Your task to perform on an android device: open wifi settings Image 0: 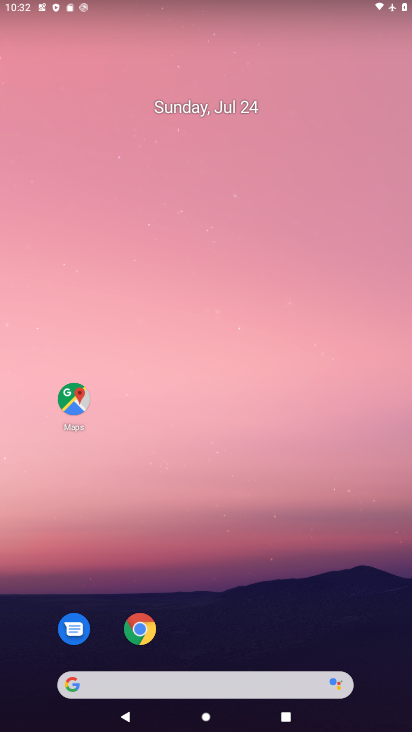
Step 0: drag from (237, 665) to (278, 21)
Your task to perform on an android device: open wifi settings Image 1: 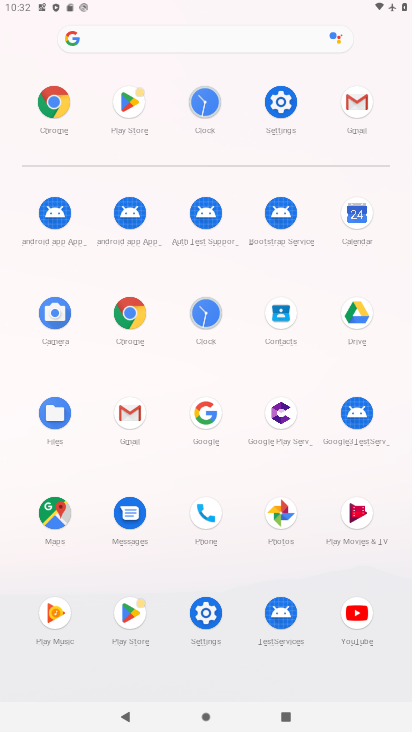
Step 1: click (281, 99)
Your task to perform on an android device: open wifi settings Image 2: 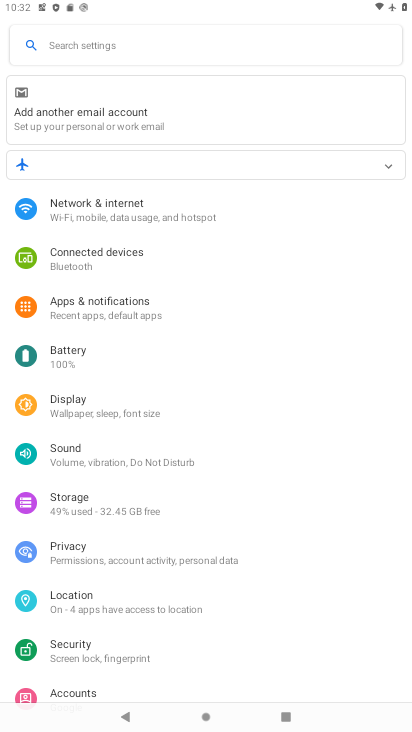
Step 2: click (184, 190)
Your task to perform on an android device: open wifi settings Image 3: 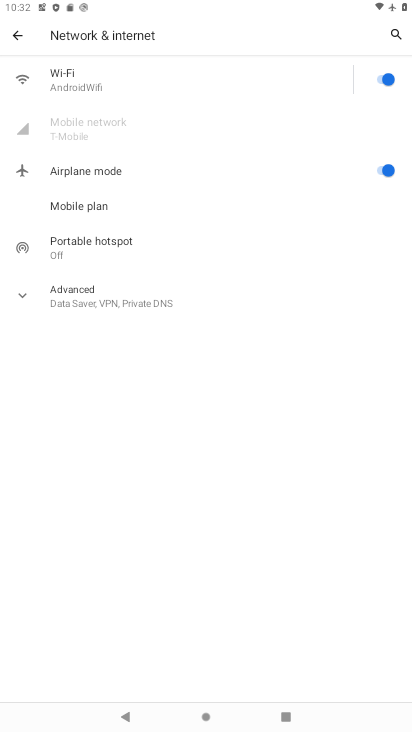
Step 3: task complete